Your task to perform on an android device: find which apps use the phone's location Image 0: 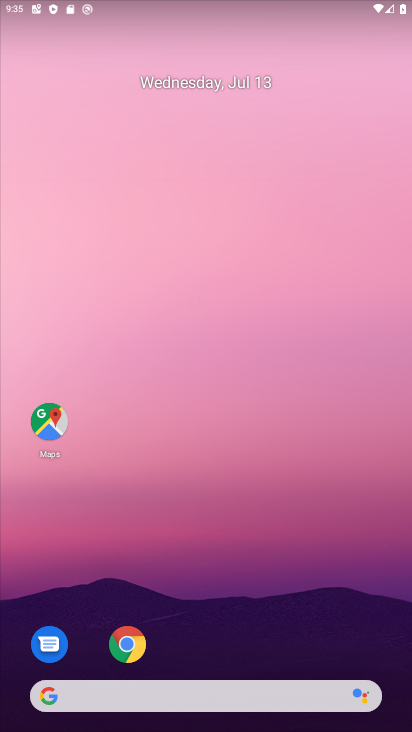
Step 0: drag from (216, 656) to (317, 159)
Your task to perform on an android device: find which apps use the phone's location Image 1: 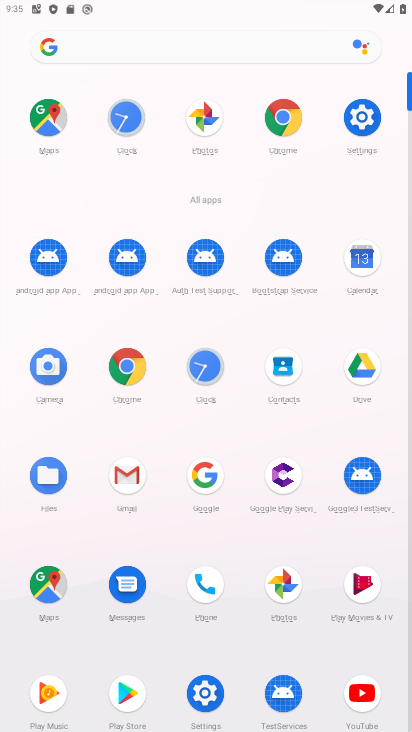
Step 1: click (201, 699)
Your task to perform on an android device: find which apps use the phone's location Image 2: 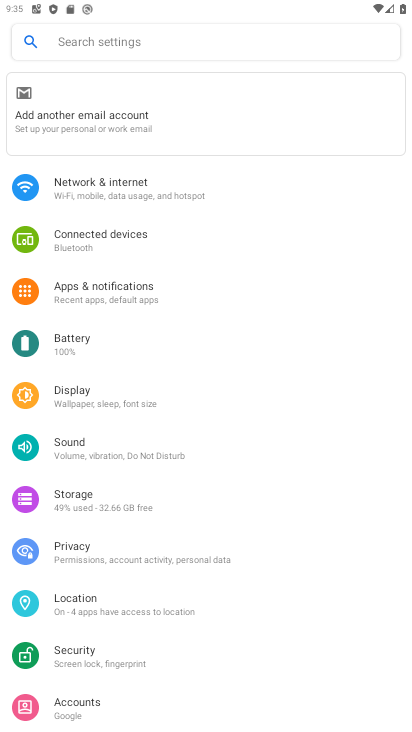
Step 2: click (109, 609)
Your task to perform on an android device: find which apps use the phone's location Image 3: 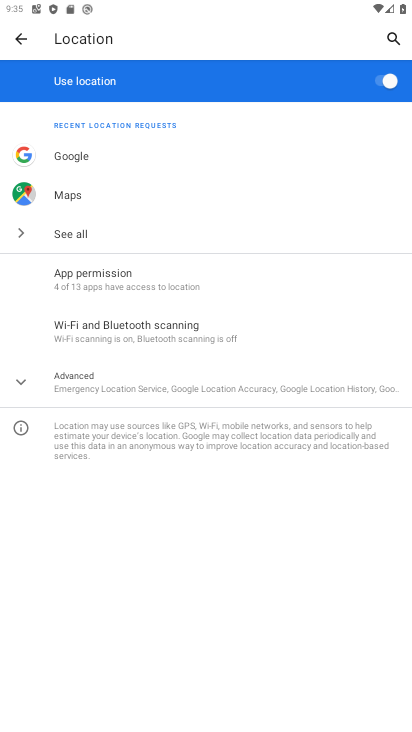
Step 3: click (186, 282)
Your task to perform on an android device: find which apps use the phone's location Image 4: 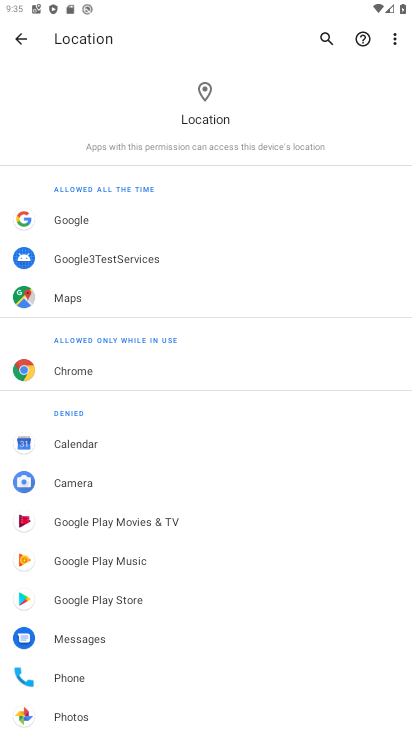
Step 4: task complete